Your task to perform on an android device: open wifi settings Image 0: 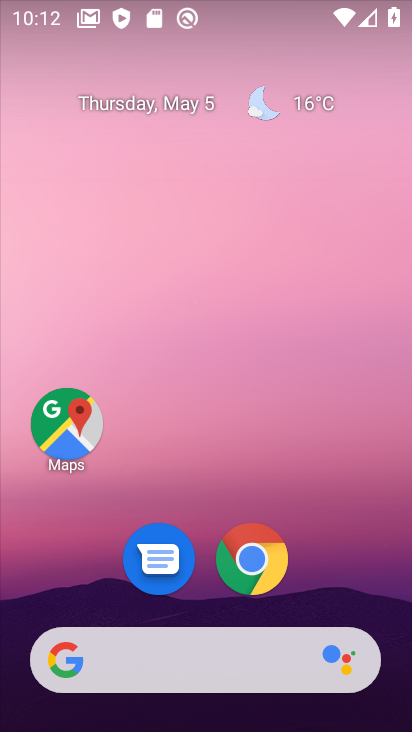
Step 0: drag from (369, 604) to (245, 208)
Your task to perform on an android device: open wifi settings Image 1: 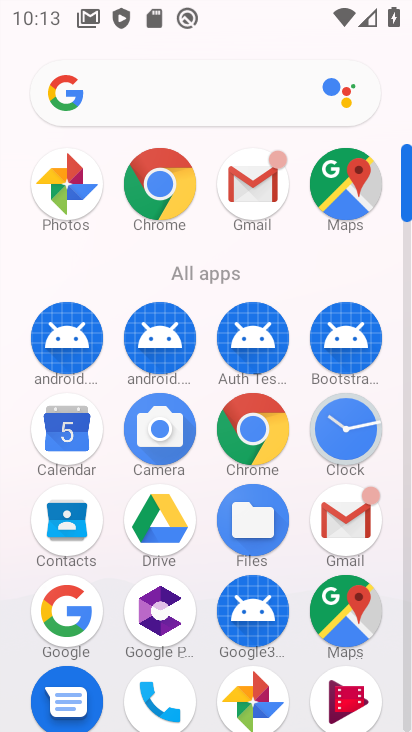
Step 1: click (409, 704)
Your task to perform on an android device: open wifi settings Image 2: 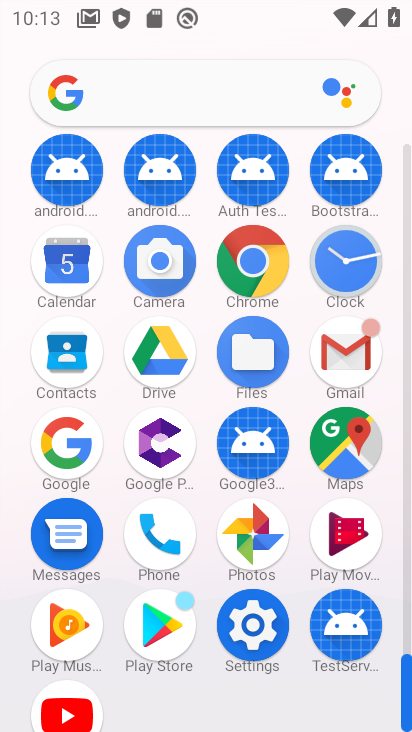
Step 2: click (275, 639)
Your task to perform on an android device: open wifi settings Image 3: 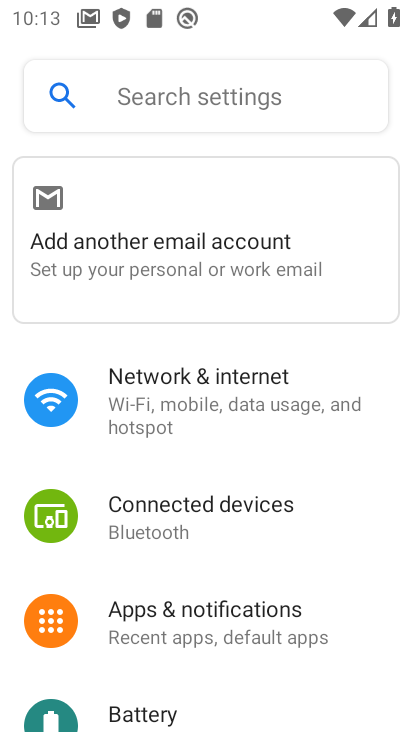
Step 3: click (144, 415)
Your task to perform on an android device: open wifi settings Image 4: 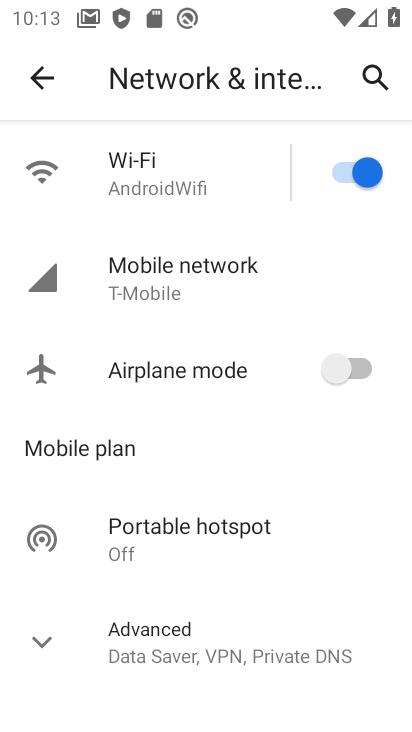
Step 4: click (158, 177)
Your task to perform on an android device: open wifi settings Image 5: 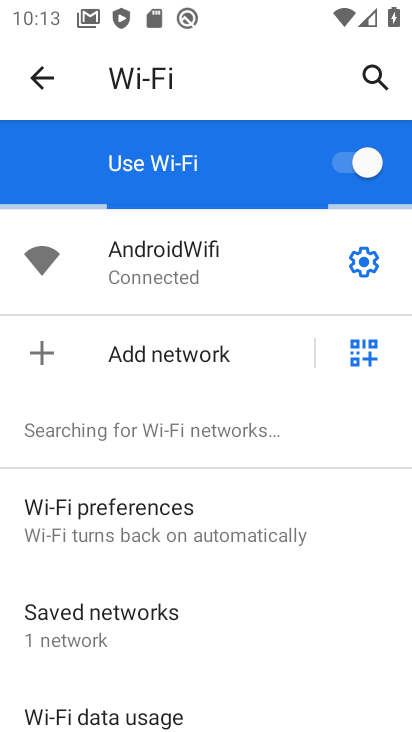
Step 5: task complete